Your task to perform on an android device: Add razer thresher to the cart on costco Image 0: 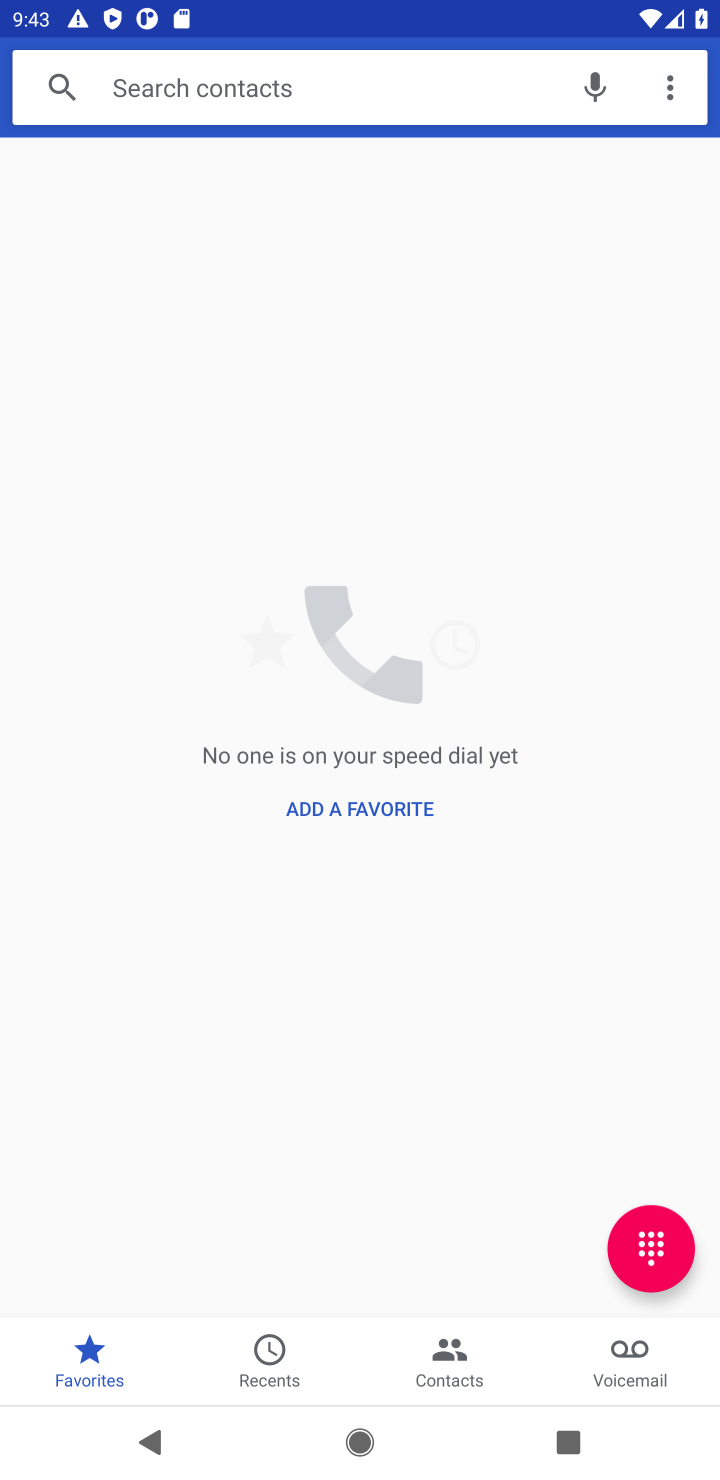
Step 0: press home button
Your task to perform on an android device: Add razer thresher to the cart on costco Image 1: 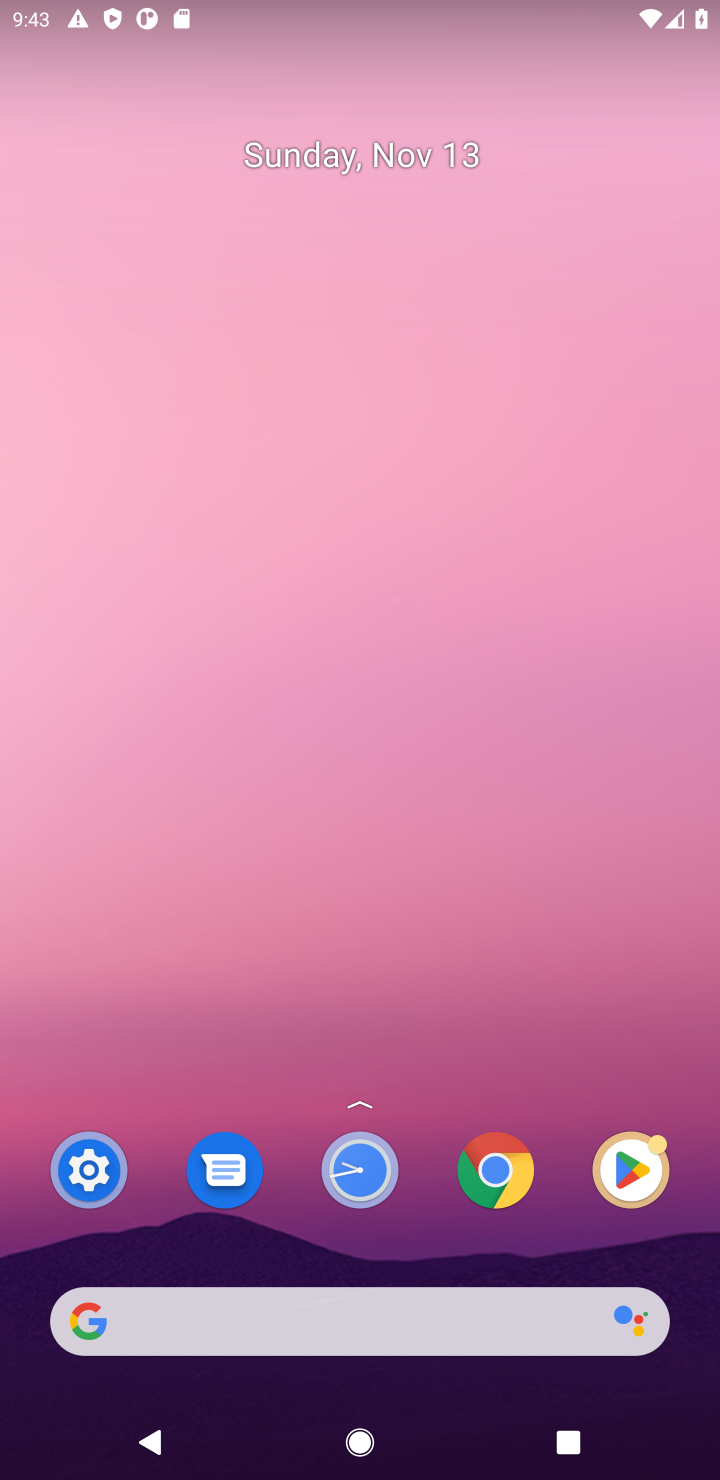
Step 1: click (312, 1348)
Your task to perform on an android device: Add razer thresher to the cart on costco Image 2: 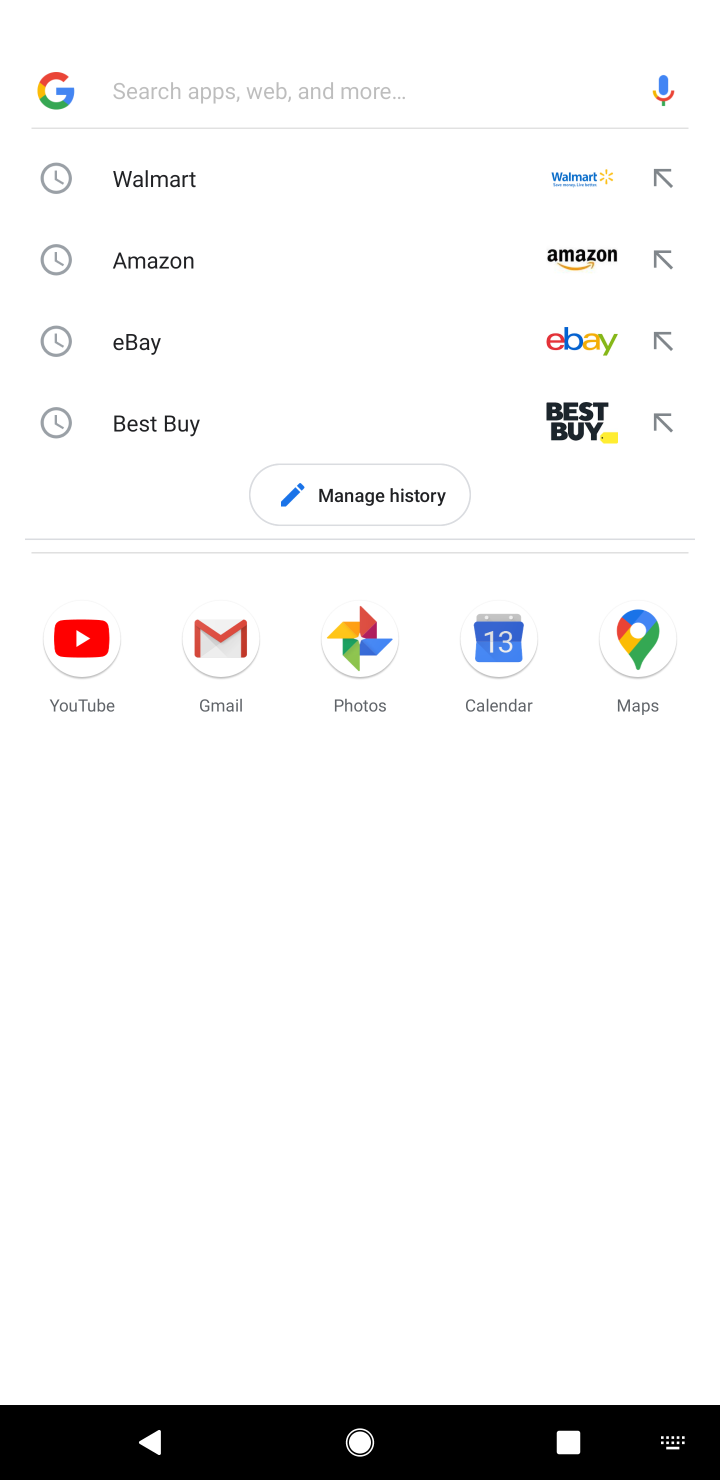
Step 2: type "costco.co"
Your task to perform on an android device: Add razer thresher to the cart on costco Image 3: 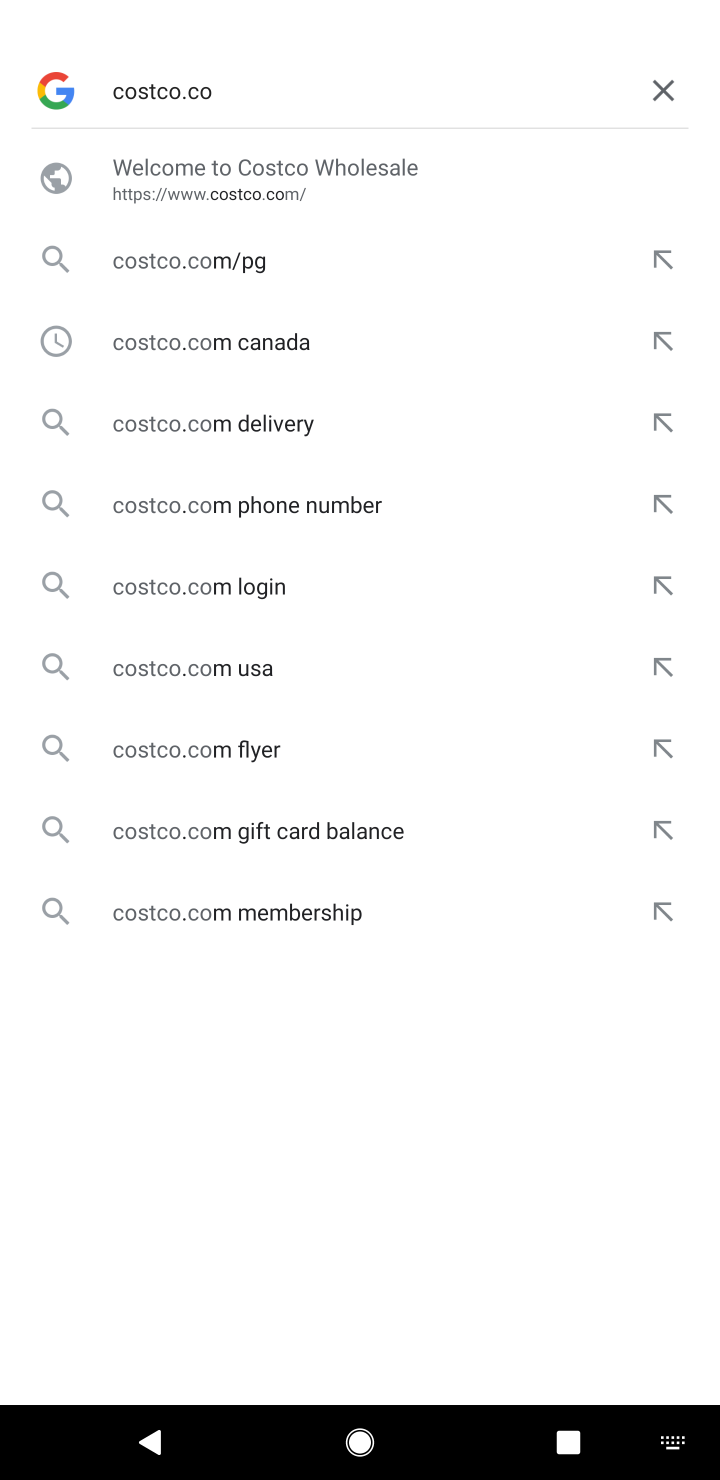
Step 3: click (356, 238)
Your task to perform on an android device: Add razer thresher to the cart on costco Image 4: 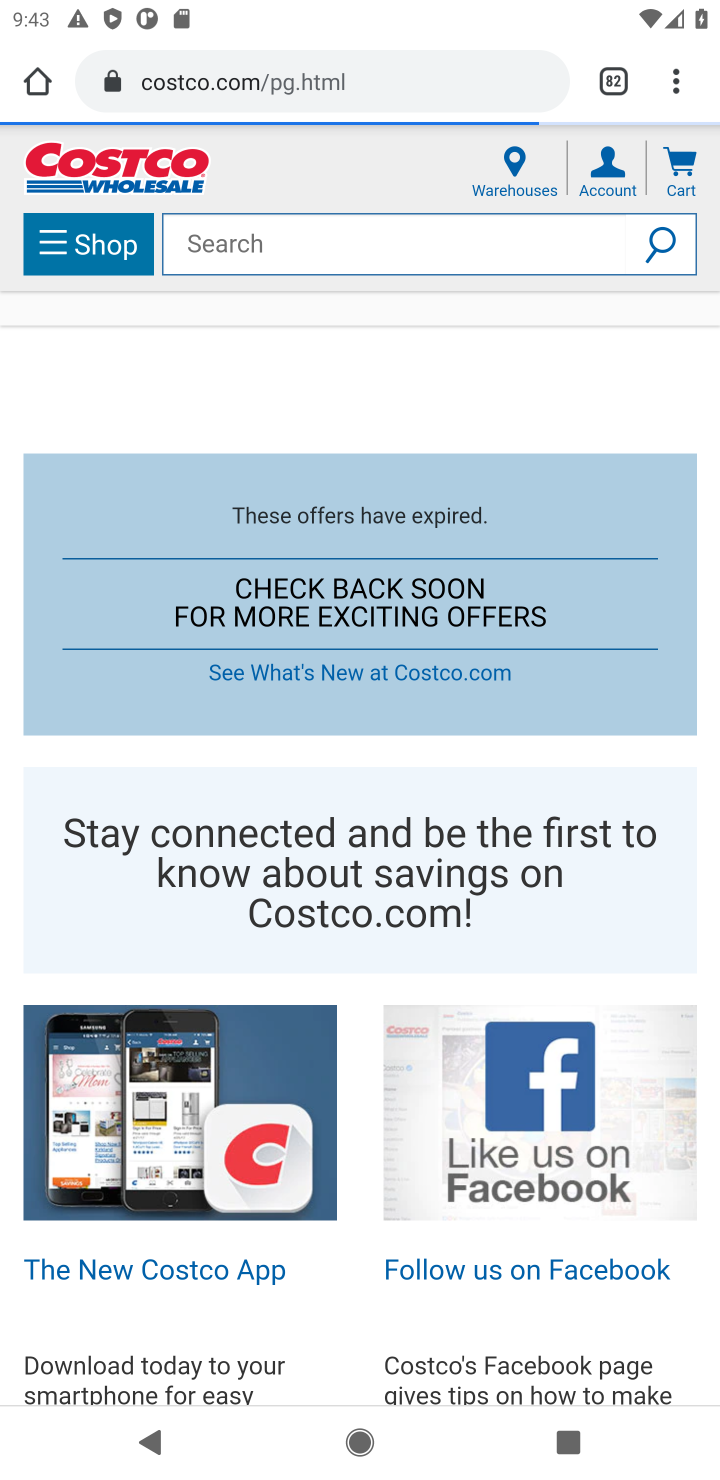
Step 4: task complete